Your task to perform on an android device: uninstall "Google Home" Image 0: 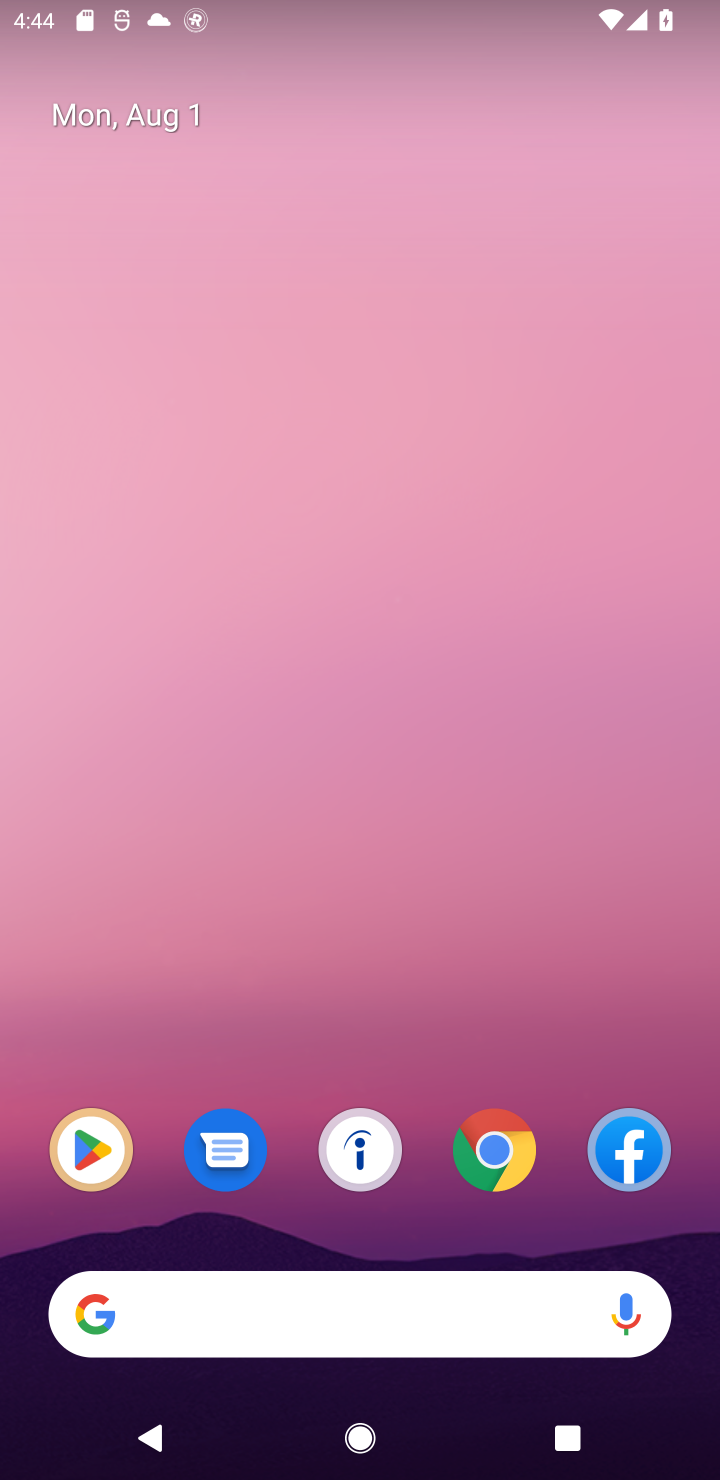
Step 0: click (194, 1312)
Your task to perform on an android device: uninstall "Google Home" Image 1: 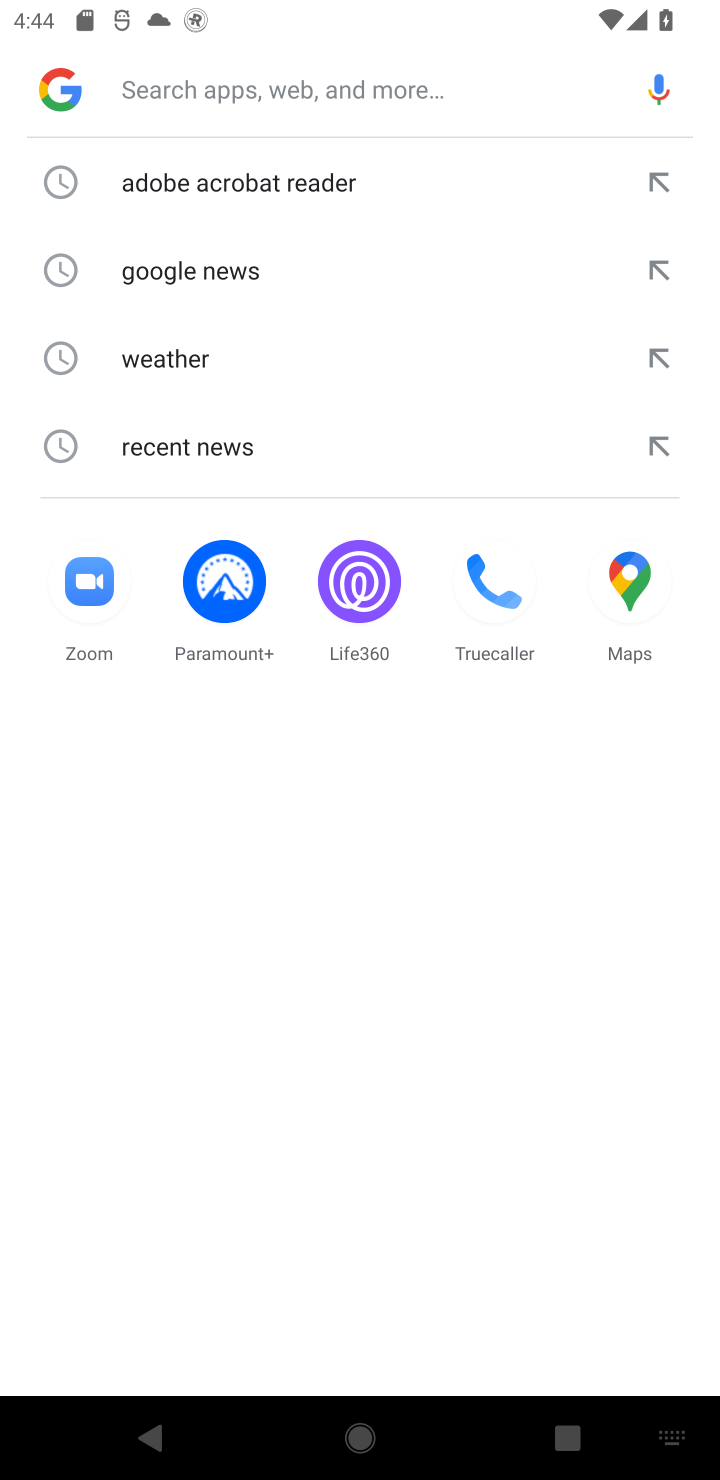
Step 1: task complete